Your task to perform on an android device: turn on notifications settings in the gmail app Image 0: 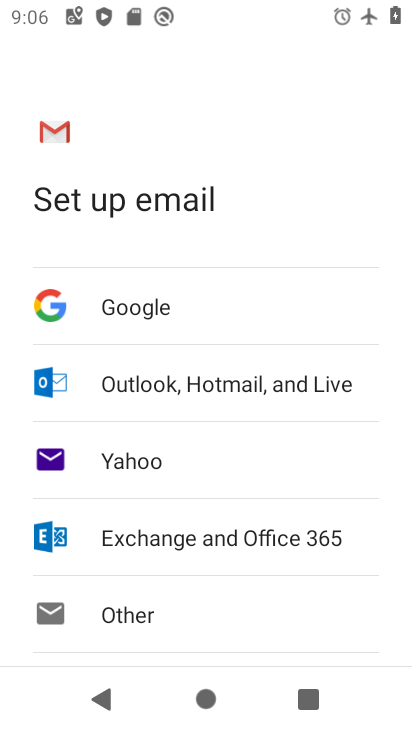
Step 0: press home button
Your task to perform on an android device: turn on notifications settings in the gmail app Image 1: 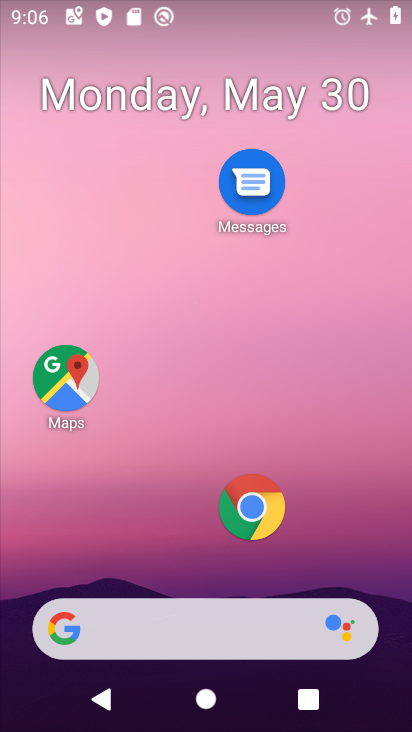
Step 1: drag from (217, 549) to (202, 89)
Your task to perform on an android device: turn on notifications settings in the gmail app Image 2: 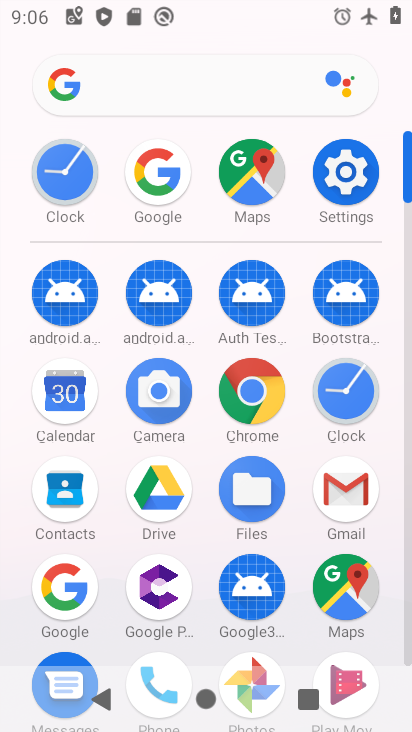
Step 2: click (343, 493)
Your task to perform on an android device: turn on notifications settings in the gmail app Image 3: 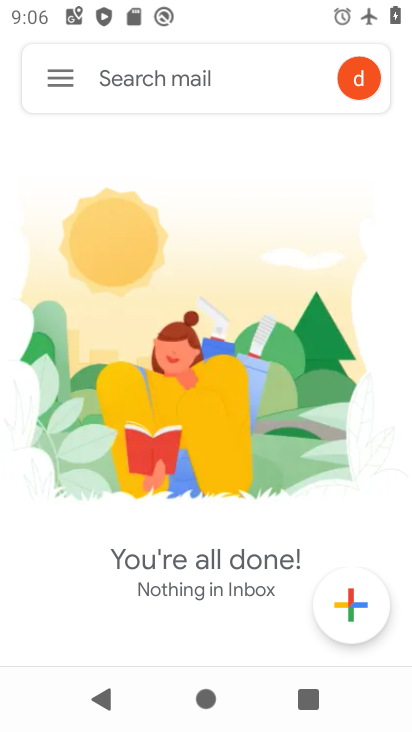
Step 3: click (61, 93)
Your task to perform on an android device: turn on notifications settings in the gmail app Image 4: 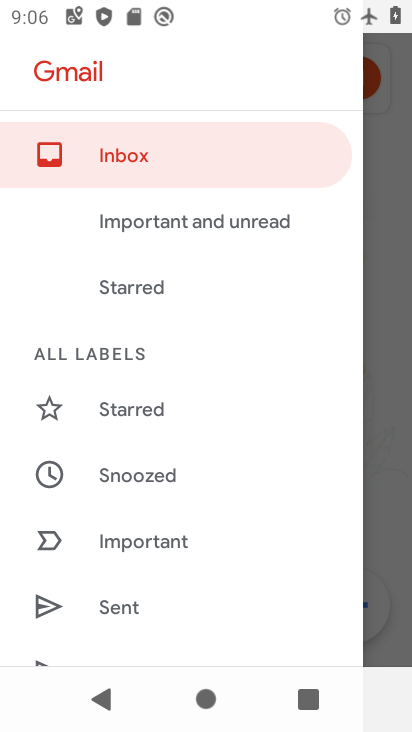
Step 4: drag from (172, 511) to (127, 275)
Your task to perform on an android device: turn on notifications settings in the gmail app Image 5: 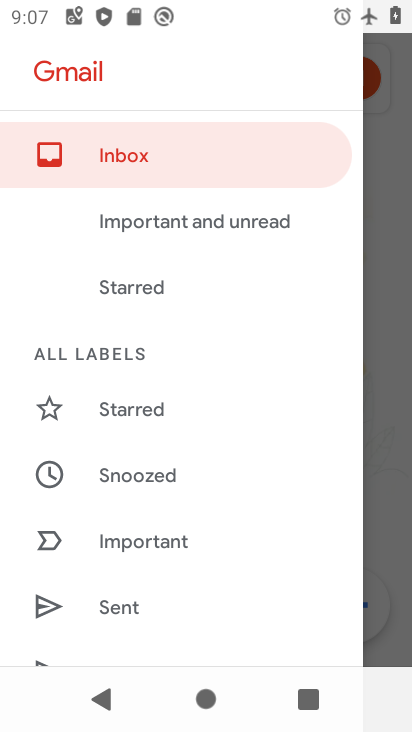
Step 5: drag from (174, 561) to (205, 360)
Your task to perform on an android device: turn on notifications settings in the gmail app Image 6: 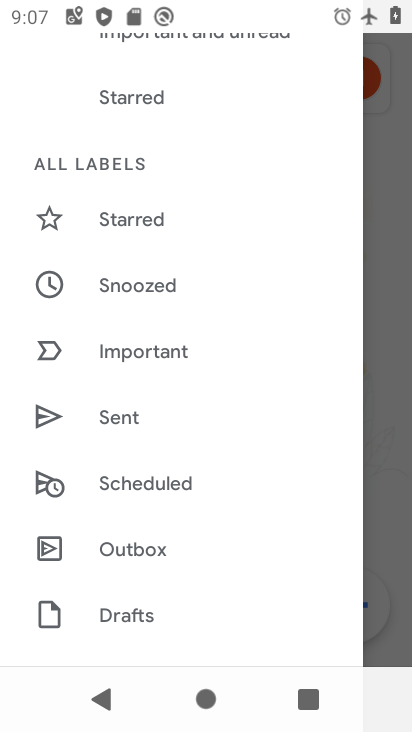
Step 6: drag from (164, 544) to (150, 298)
Your task to perform on an android device: turn on notifications settings in the gmail app Image 7: 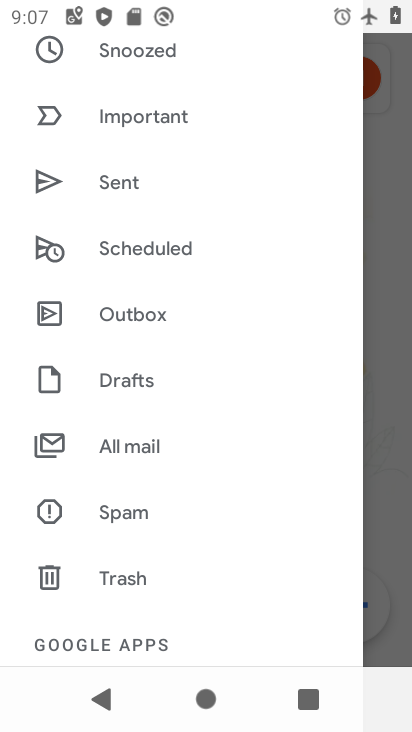
Step 7: drag from (180, 635) to (275, 286)
Your task to perform on an android device: turn on notifications settings in the gmail app Image 8: 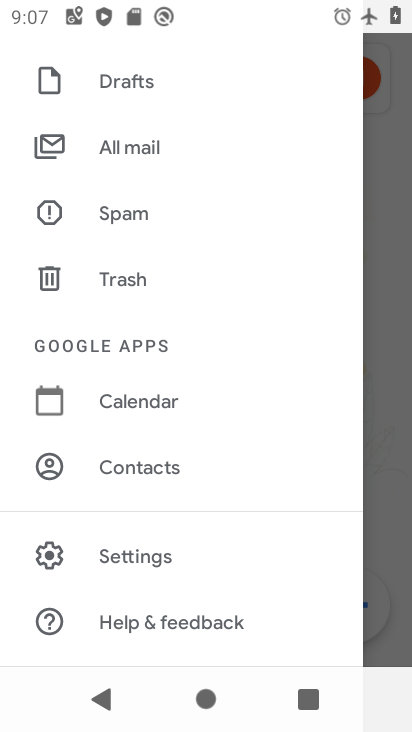
Step 8: click (170, 555)
Your task to perform on an android device: turn on notifications settings in the gmail app Image 9: 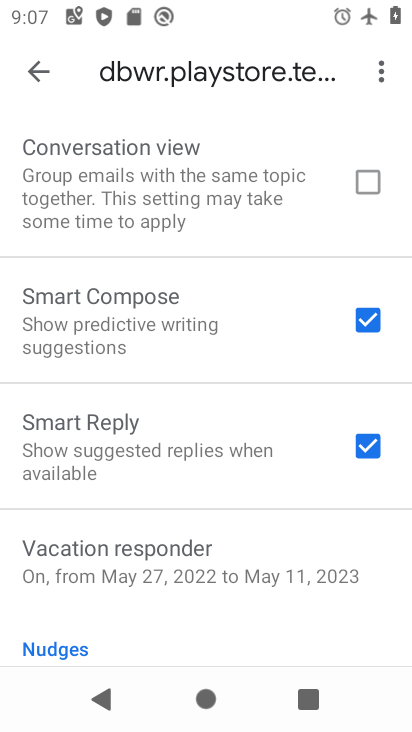
Step 9: drag from (168, 210) to (196, 497)
Your task to perform on an android device: turn on notifications settings in the gmail app Image 10: 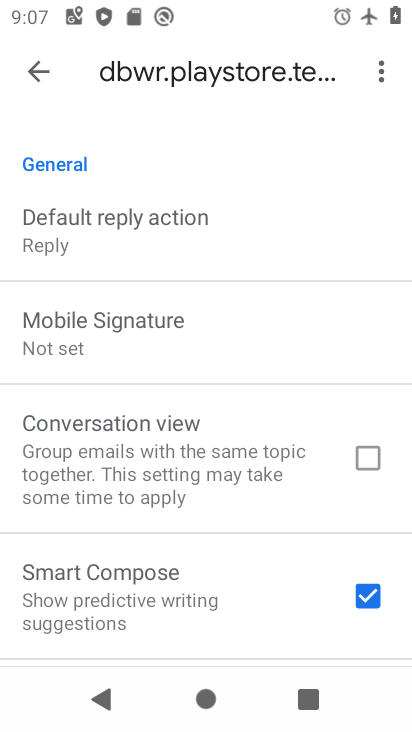
Step 10: drag from (210, 355) to (196, 637)
Your task to perform on an android device: turn on notifications settings in the gmail app Image 11: 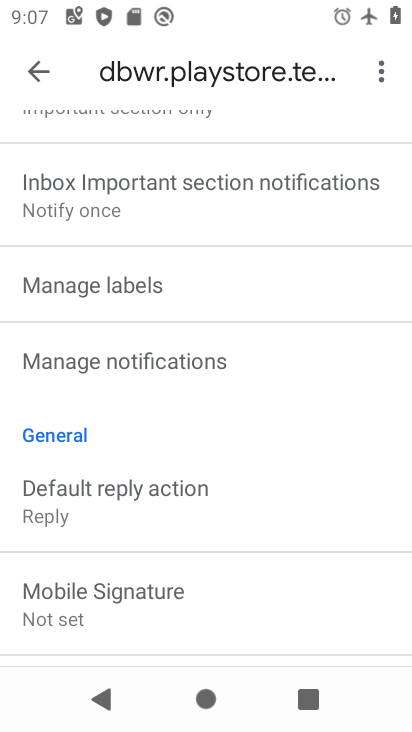
Step 11: click (189, 368)
Your task to perform on an android device: turn on notifications settings in the gmail app Image 12: 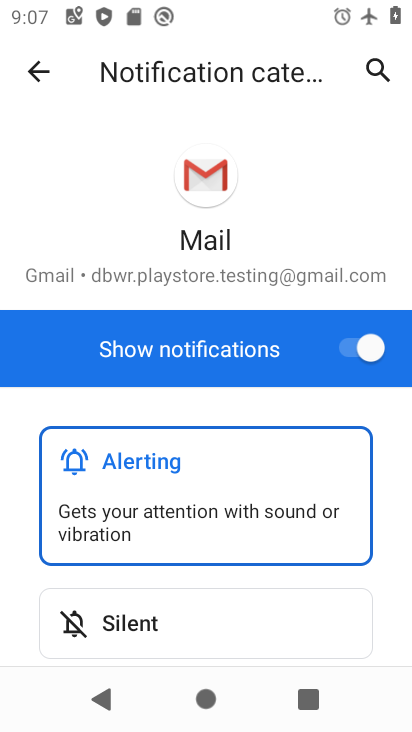
Step 12: click (340, 347)
Your task to perform on an android device: turn on notifications settings in the gmail app Image 13: 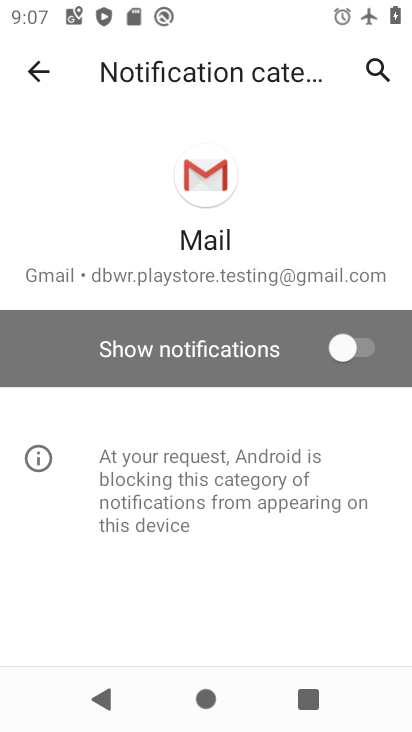
Step 13: click (374, 356)
Your task to perform on an android device: turn on notifications settings in the gmail app Image 14: 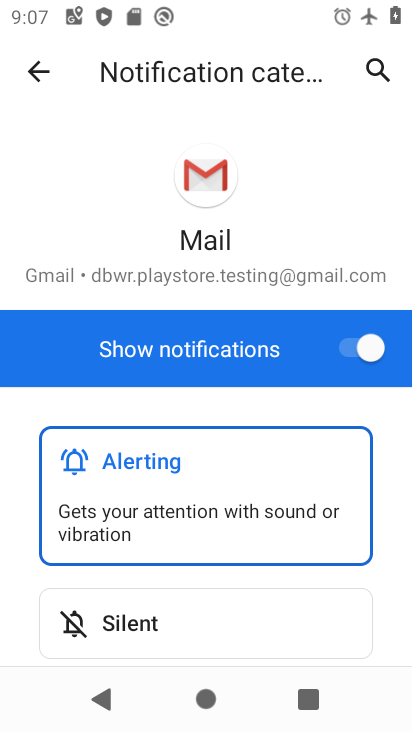
Step 14: task complete